Your task to perform on an android device: allow cookies in the chrome app Image 0: 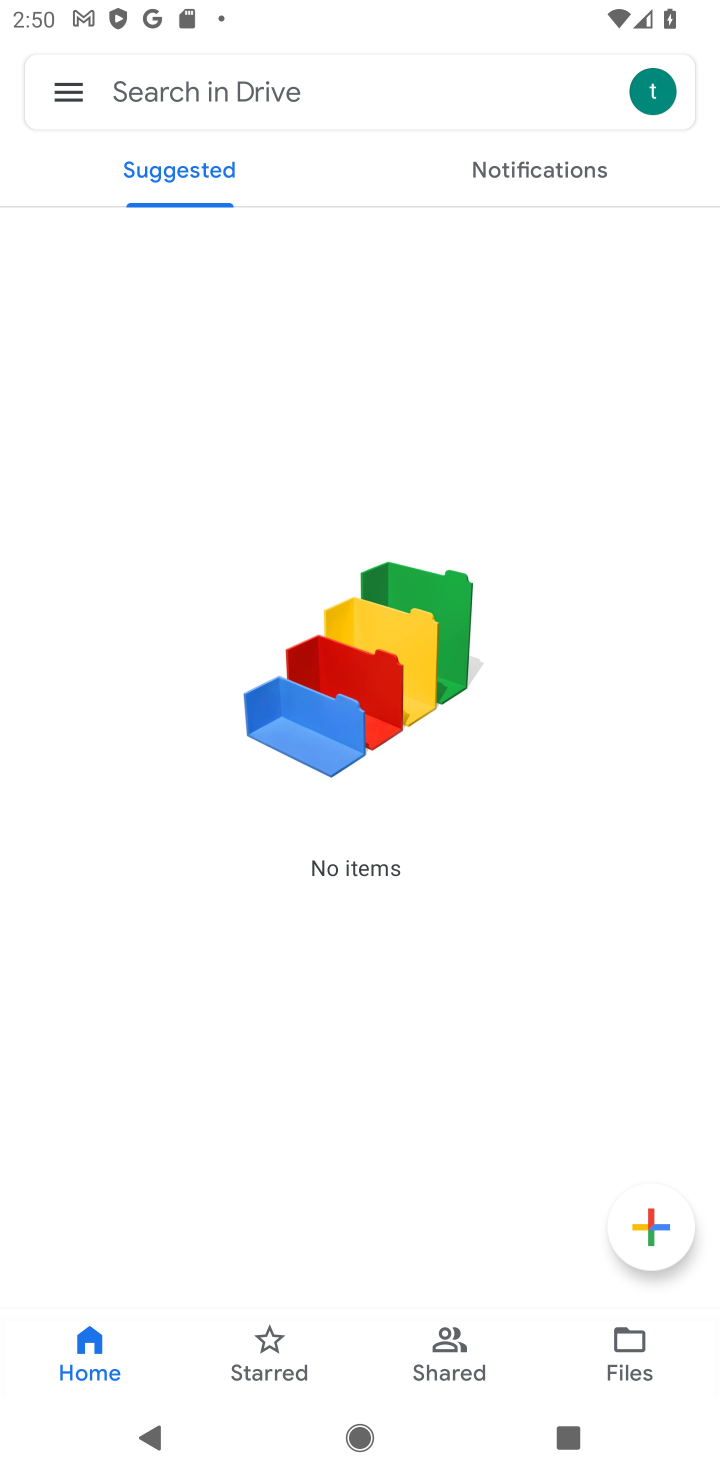
Step 0: press home button
Your task to perform on an android device: allow cookies in the chrome app Image 1: 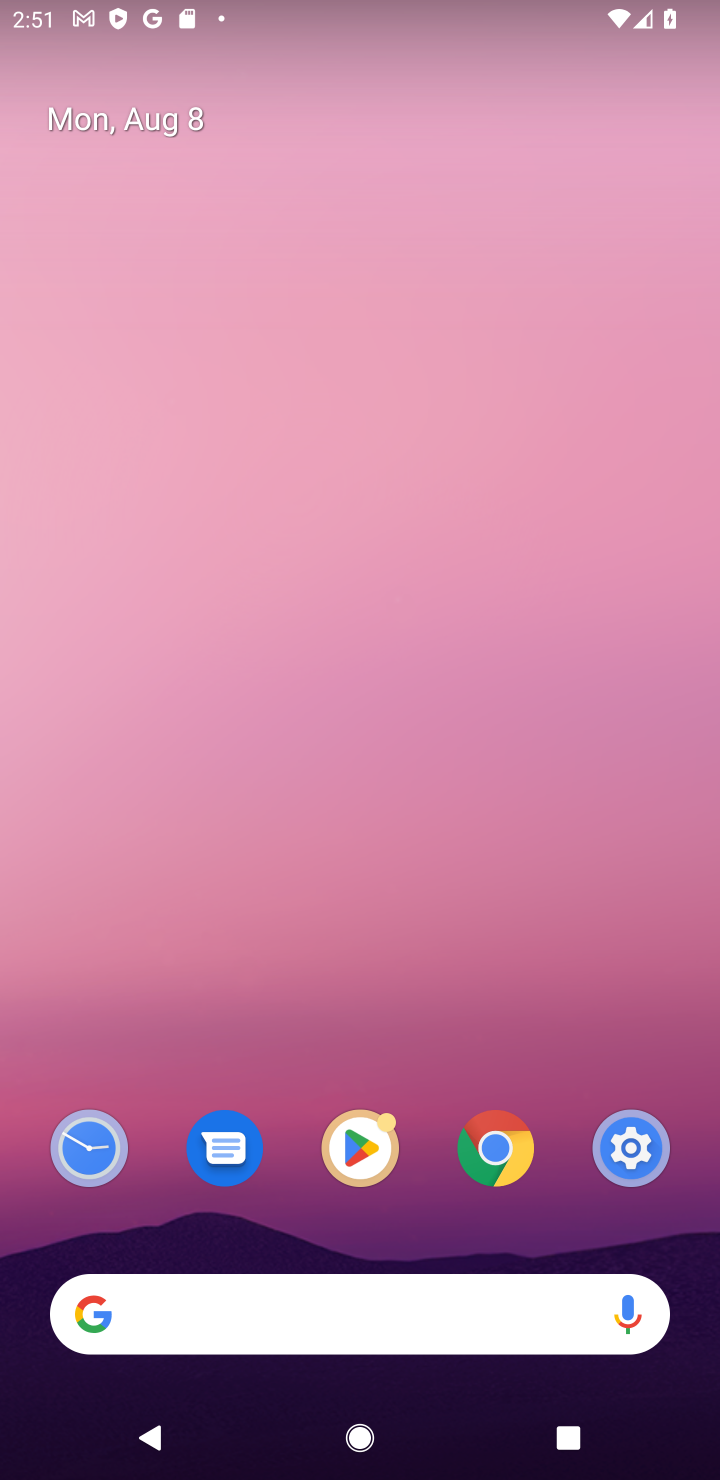
Step 1: click (485, 1144)
Your task to perform on an android device: allow cookies in the chrome app Image 2: 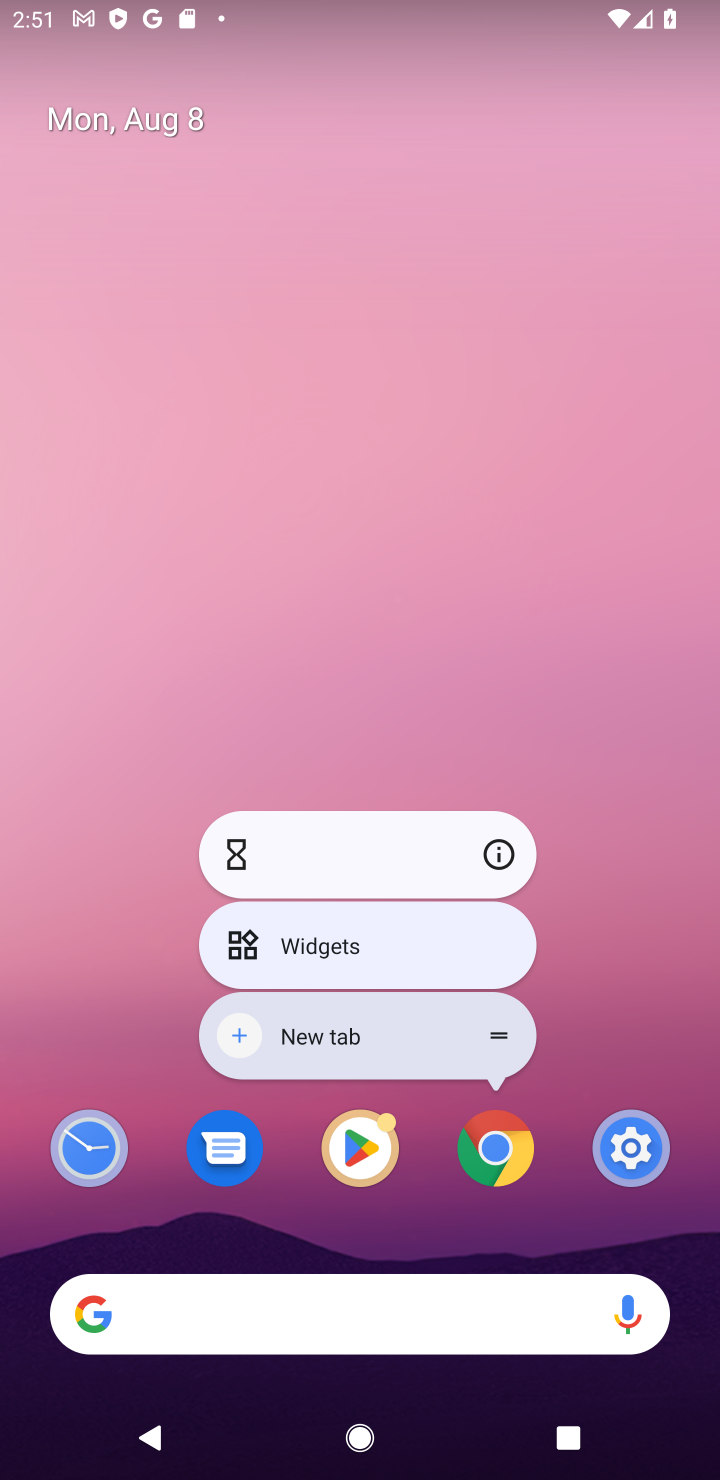
Step 2: click (485, 1144)
Your task to perform on an android device: allow cookies in the chrome app Image 3: 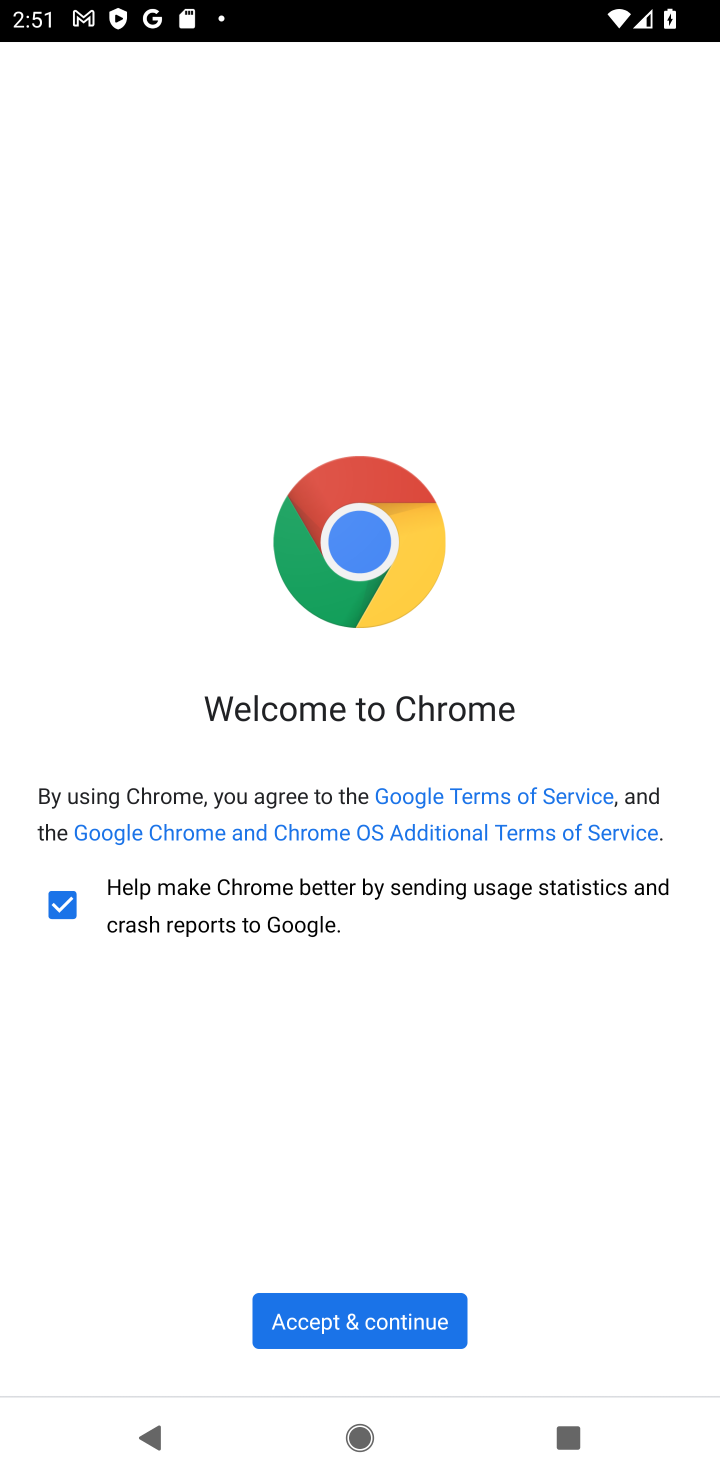
Step 3: click (390, 1314)
Your task to perform on an android device: allow cookies in the chrome app Image 4: 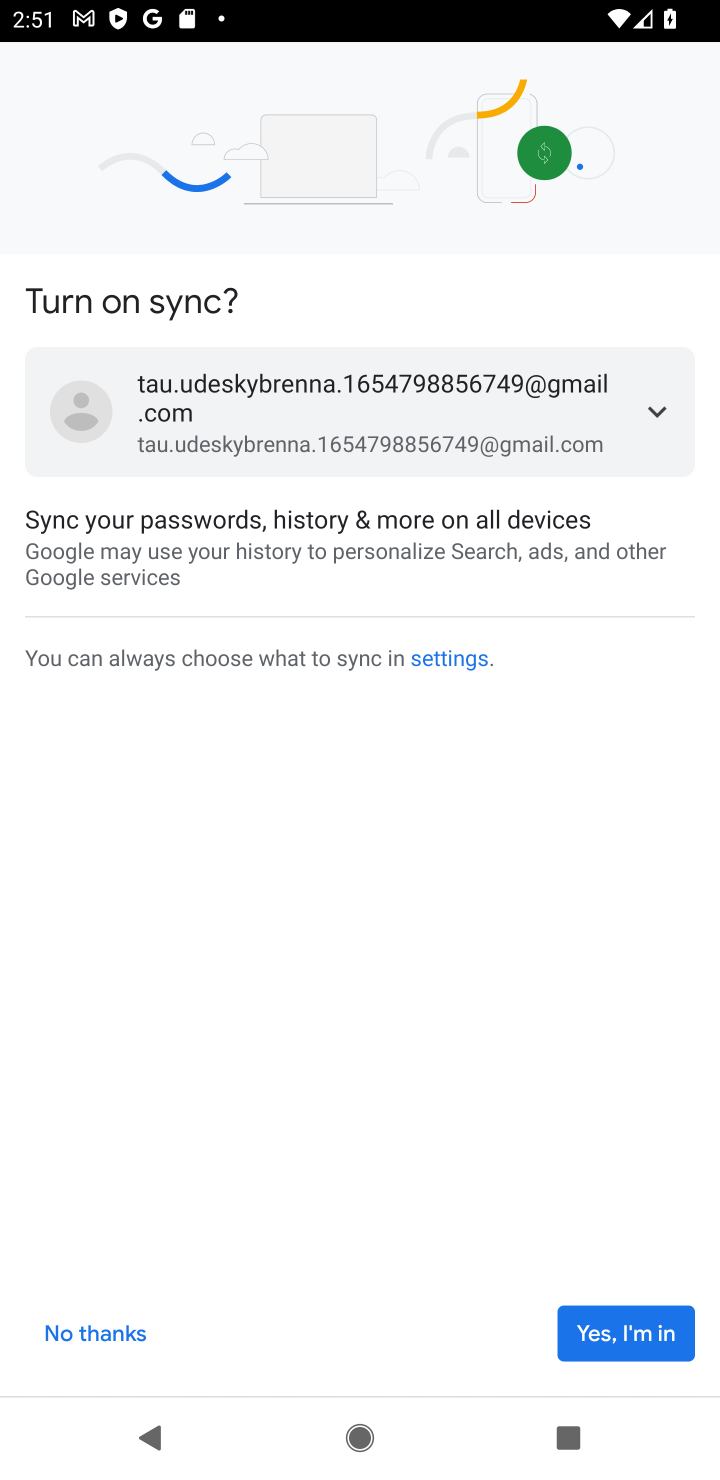
Step 4: click (653, 1329)
Your task to perform on an android device: allow cookies in the chrome app Image 5: 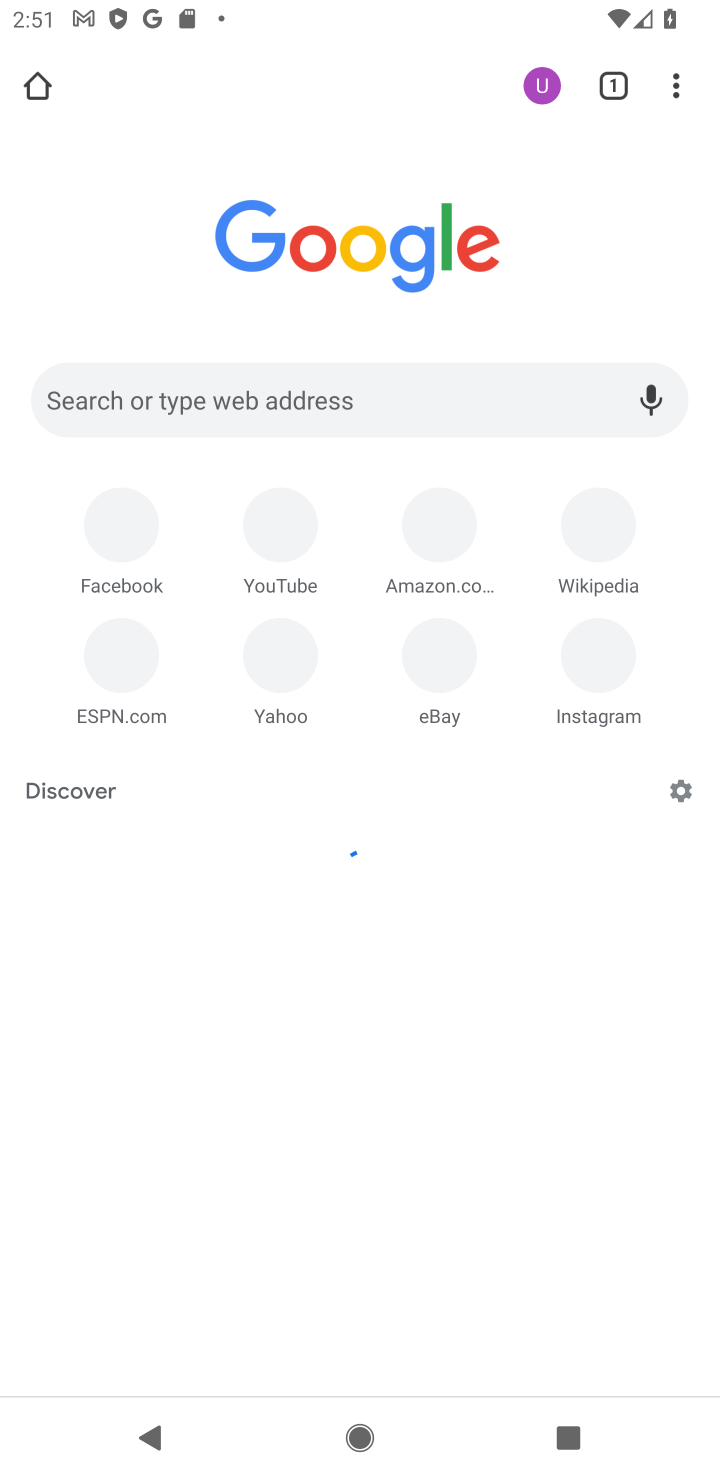
Step 5: click (662, 89)
Your task to perform on an android device: allow cookies in the chrome app Image 6: 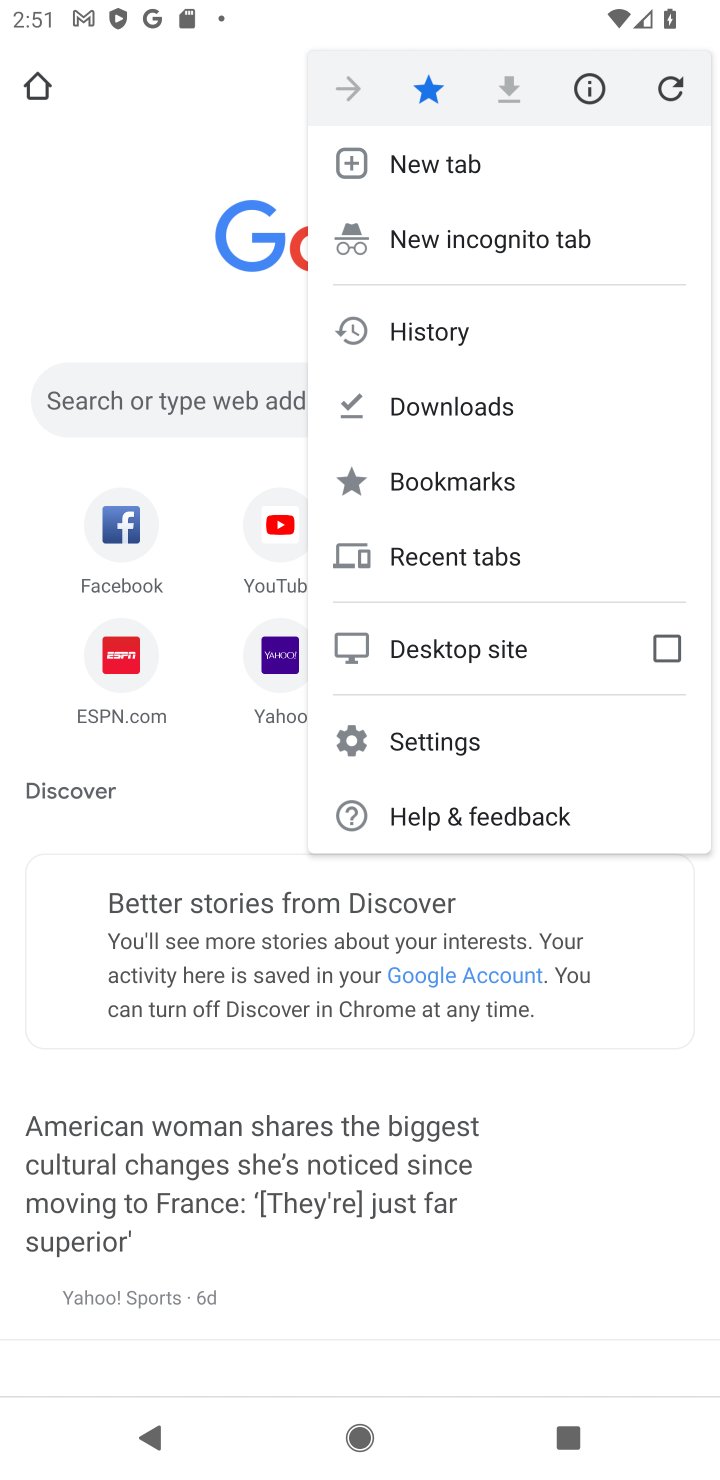
Step 6: click (403, 746)
Your task to perform on an android device: allow cookies in the chrome app Image 7: 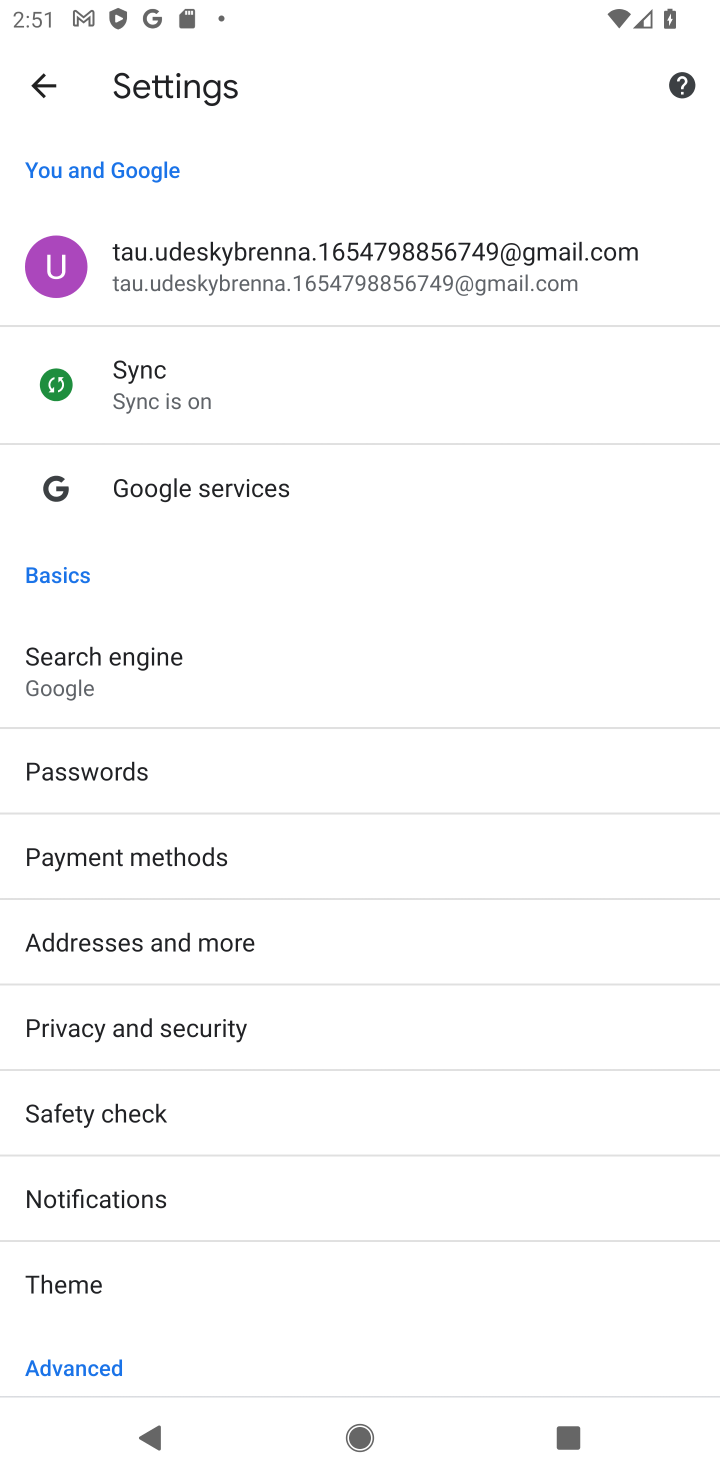
Step 7: drag from (177, 1284) to (224, 88)
Your task to perform on an android device: allow cookies in the chrome app Image 8: 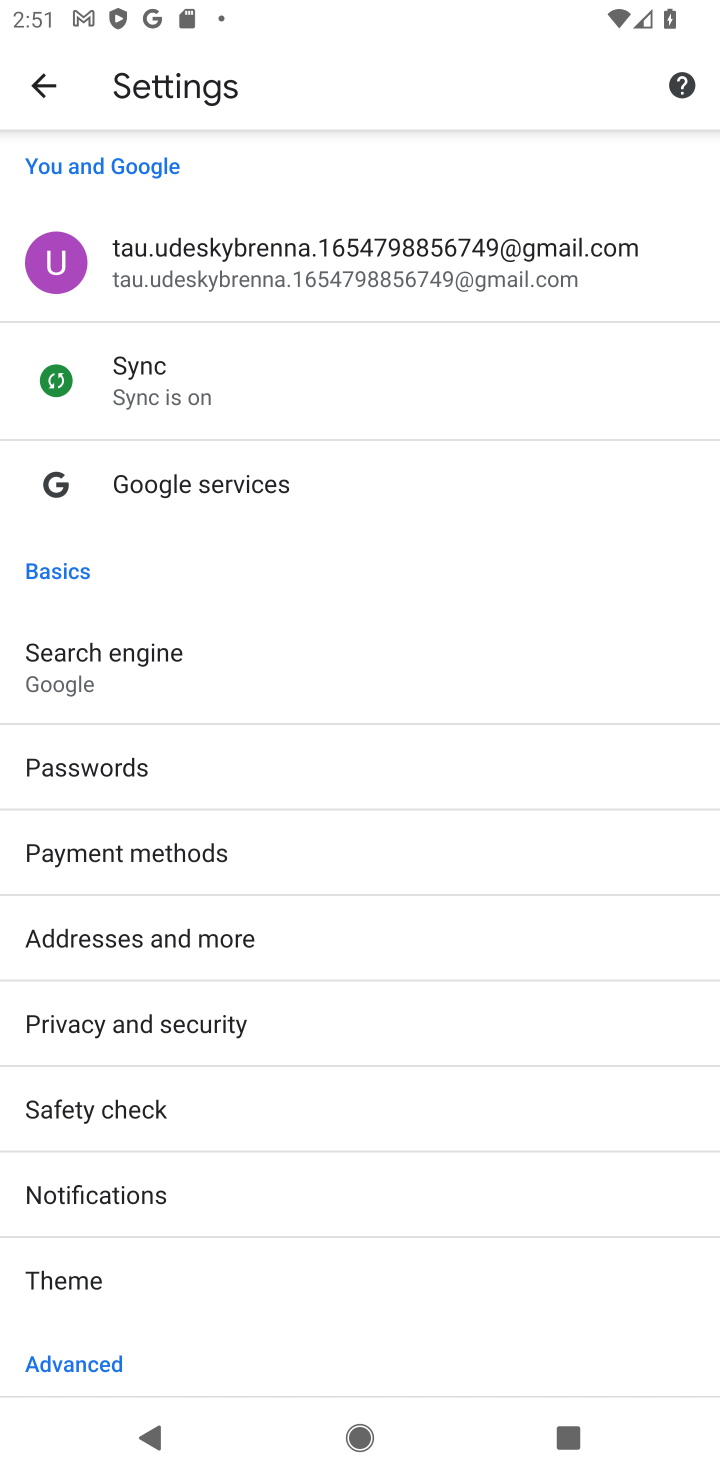
Step 8: drag from (144, 1326) to (114, 453)
Your task to perform on an android device: allow cookies in the chrome app Image 9: 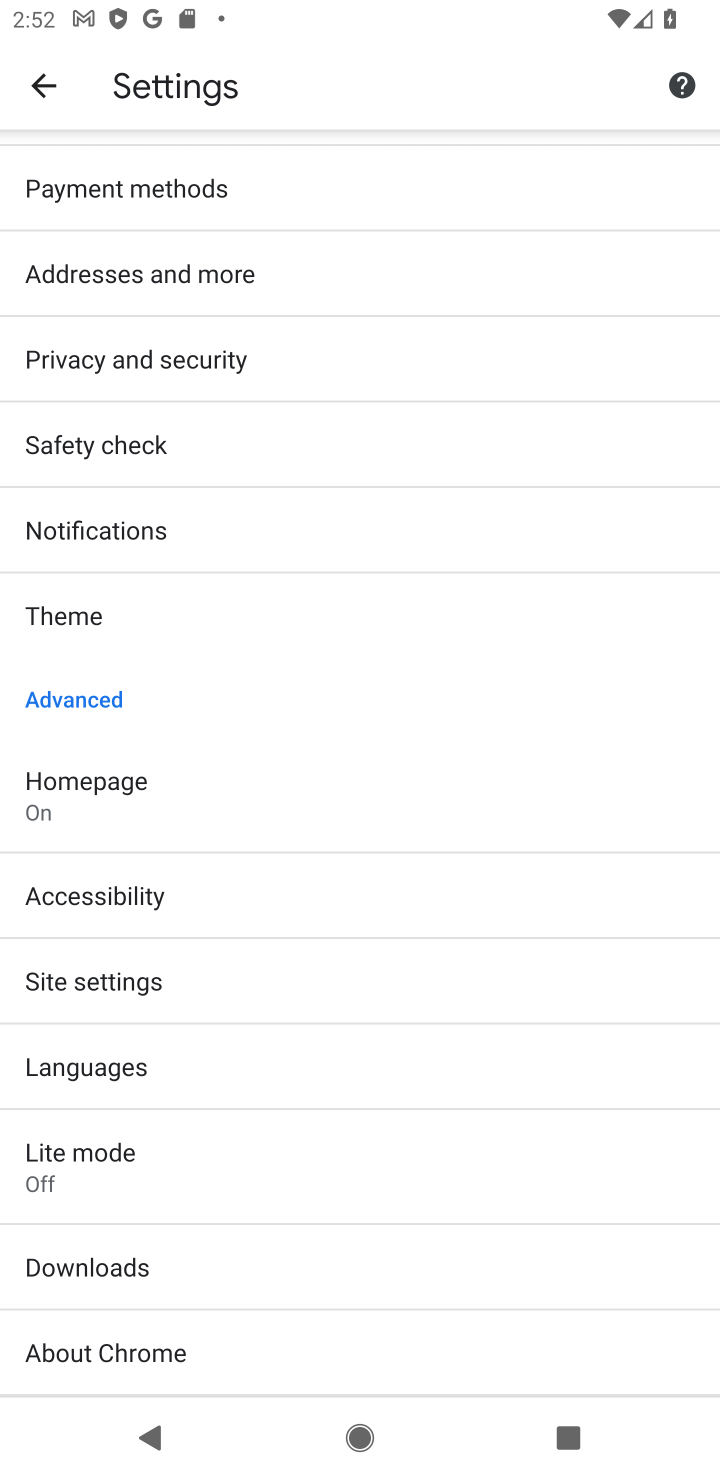
Step 9: click (236, 981)
Your task to perform on an android device: allow cookies in the chrome app Image 10: 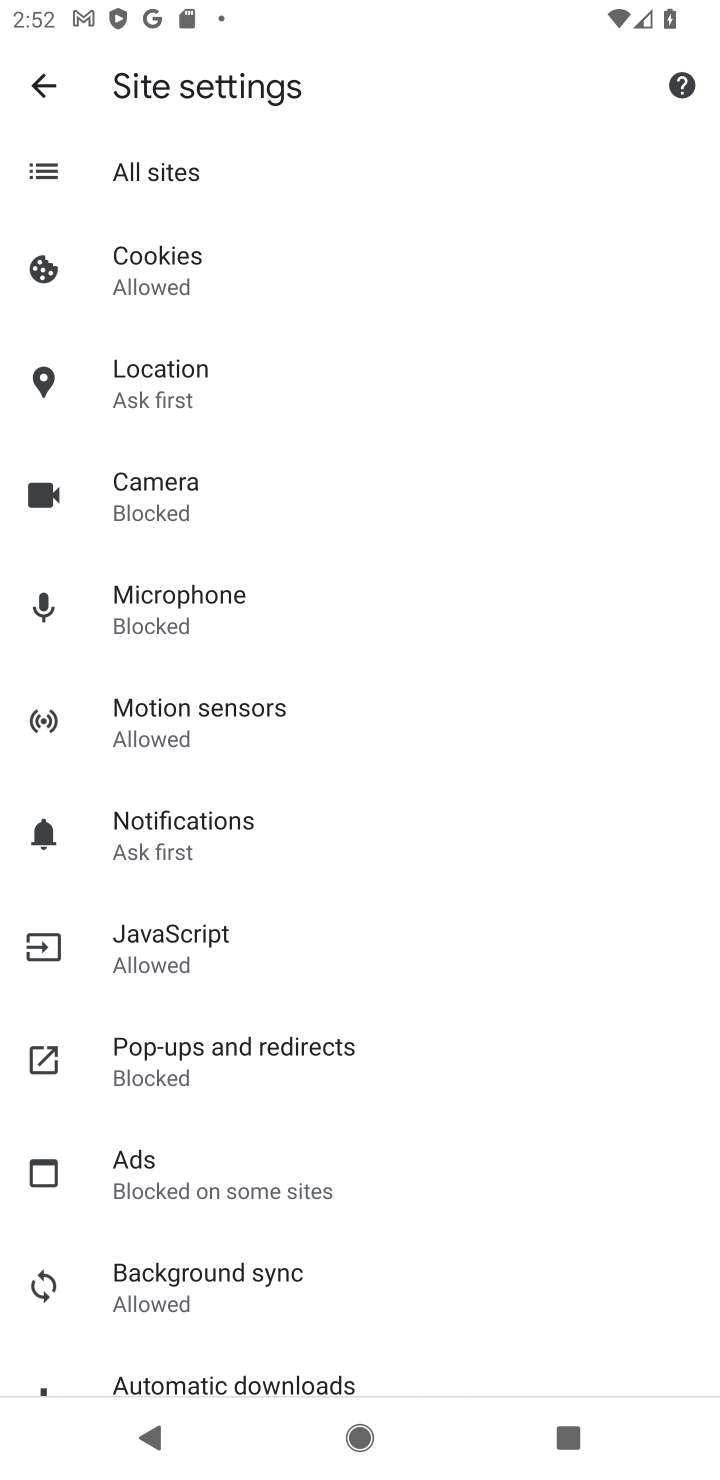
Step 10: click (277, 279)
Your task to perform on an android device: allow cookies in the chrome app Image 11: 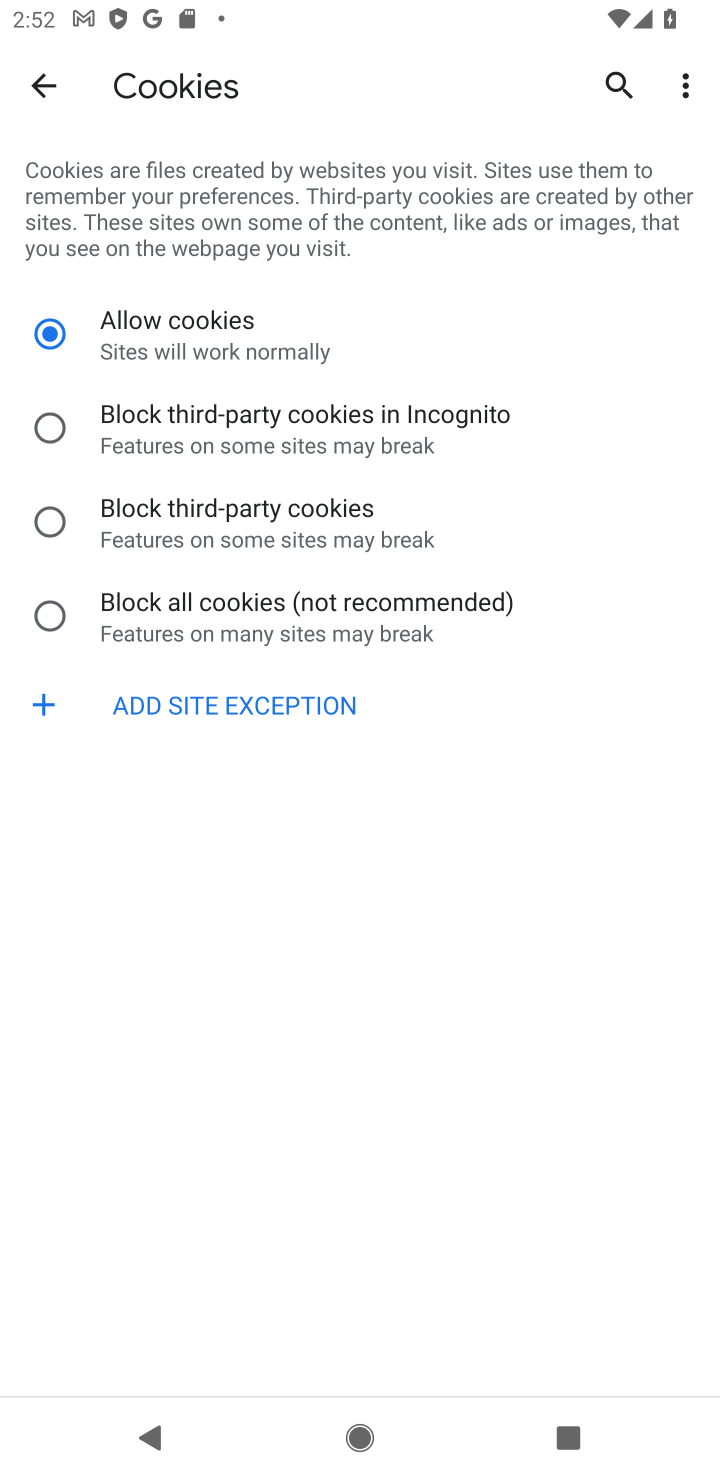
Step 11: task complete